Your task to perform on an android device: Add razer thresher to the cart on newegg Image 0: 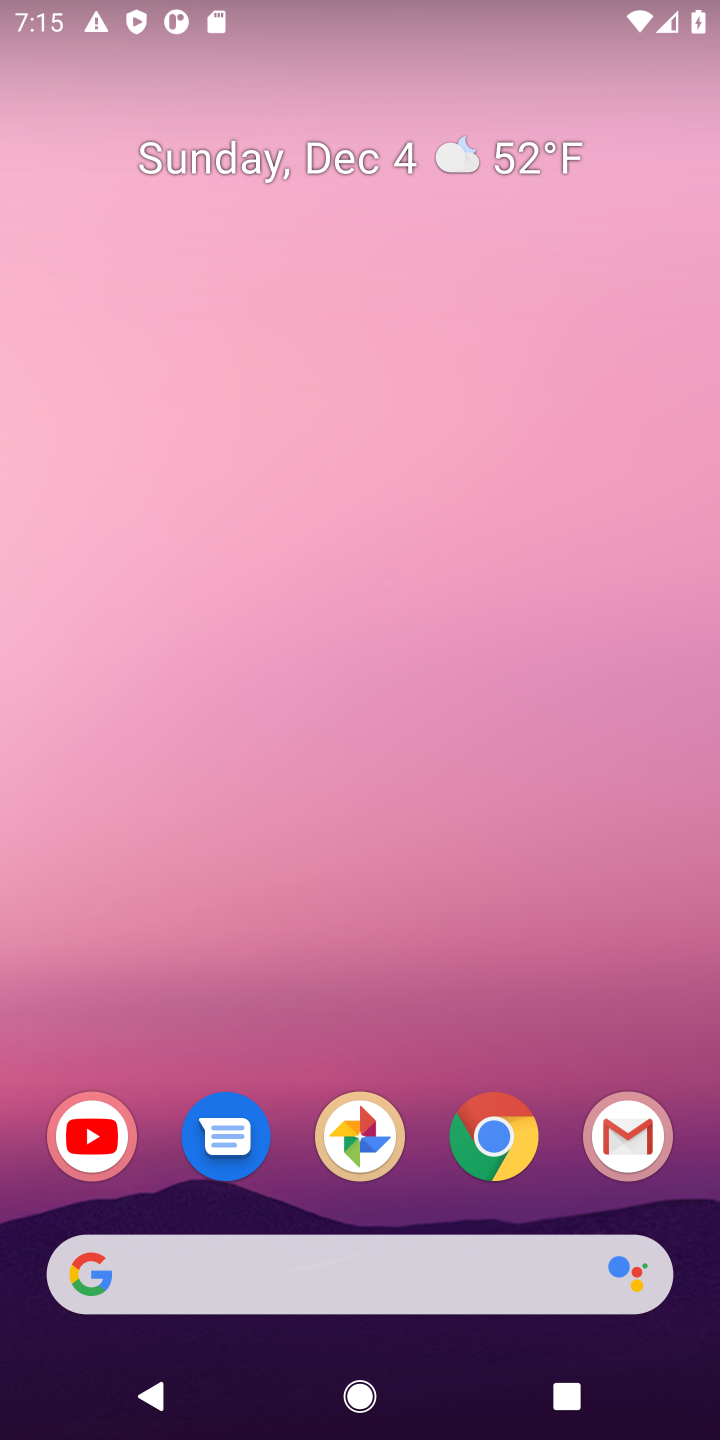
Step 0: click (505, 1143)
Your task to perform on an android device: Add razer thresher to the cart on newegg Image 1: 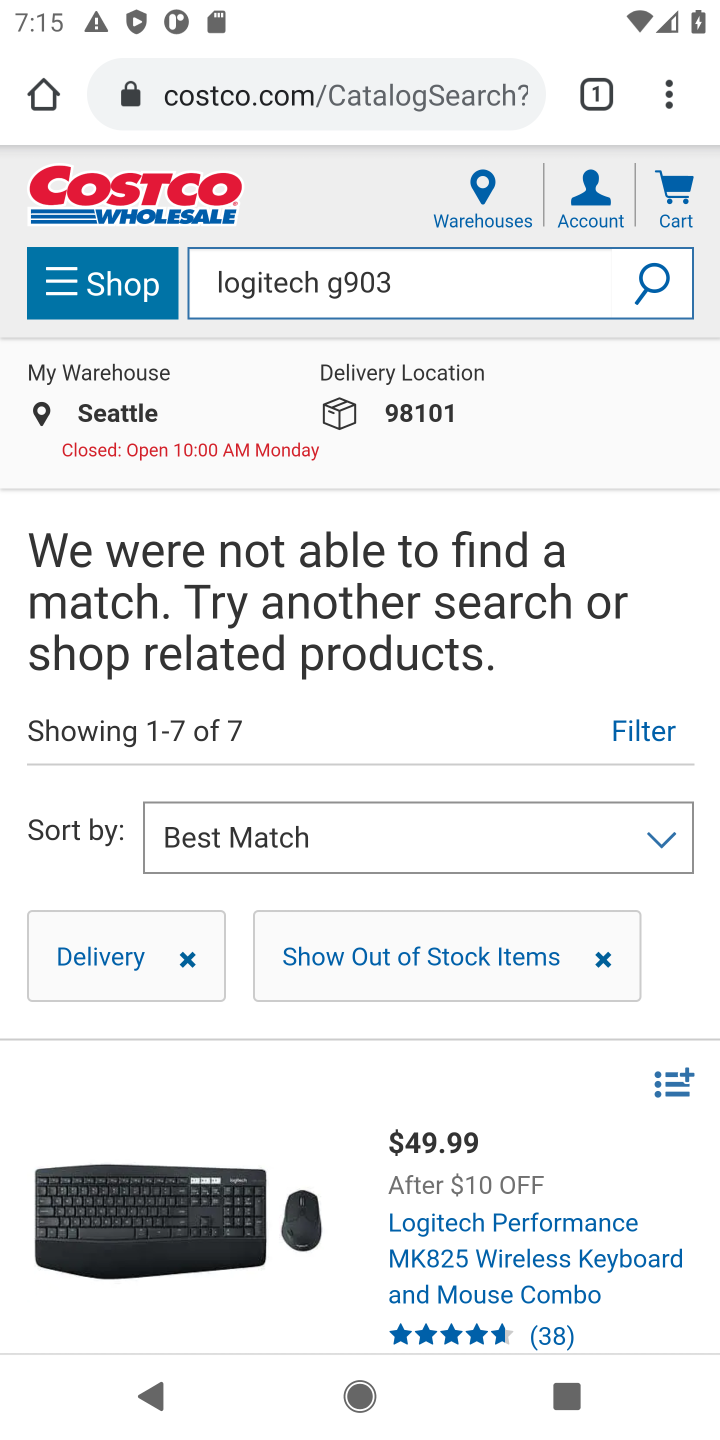
Step 1: click (289, 101)
Your task to perform on an android device: Add razer thresher to the cart on newegg Image 2: 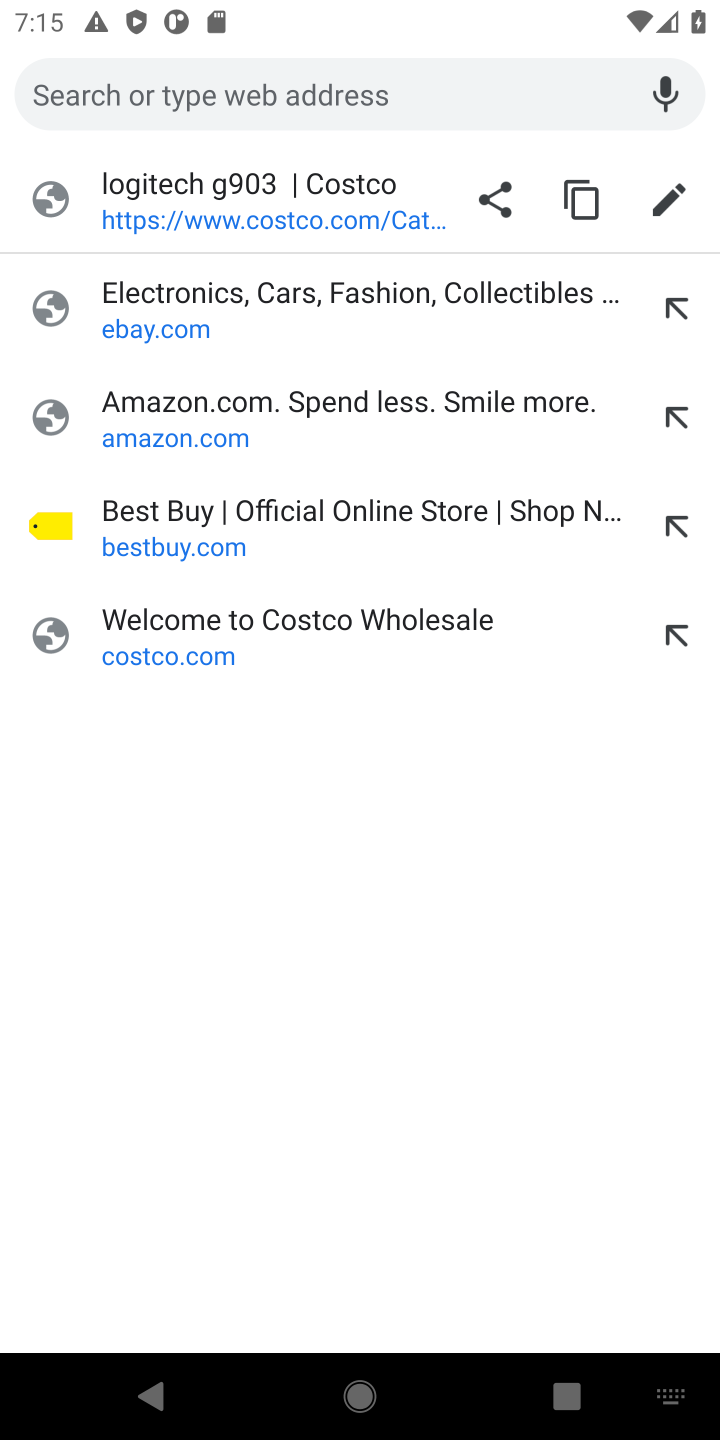
Step 2: type "newegg.com"
Your task to perform on an android device: Add razer thresher to the cart on newegg Image 3: 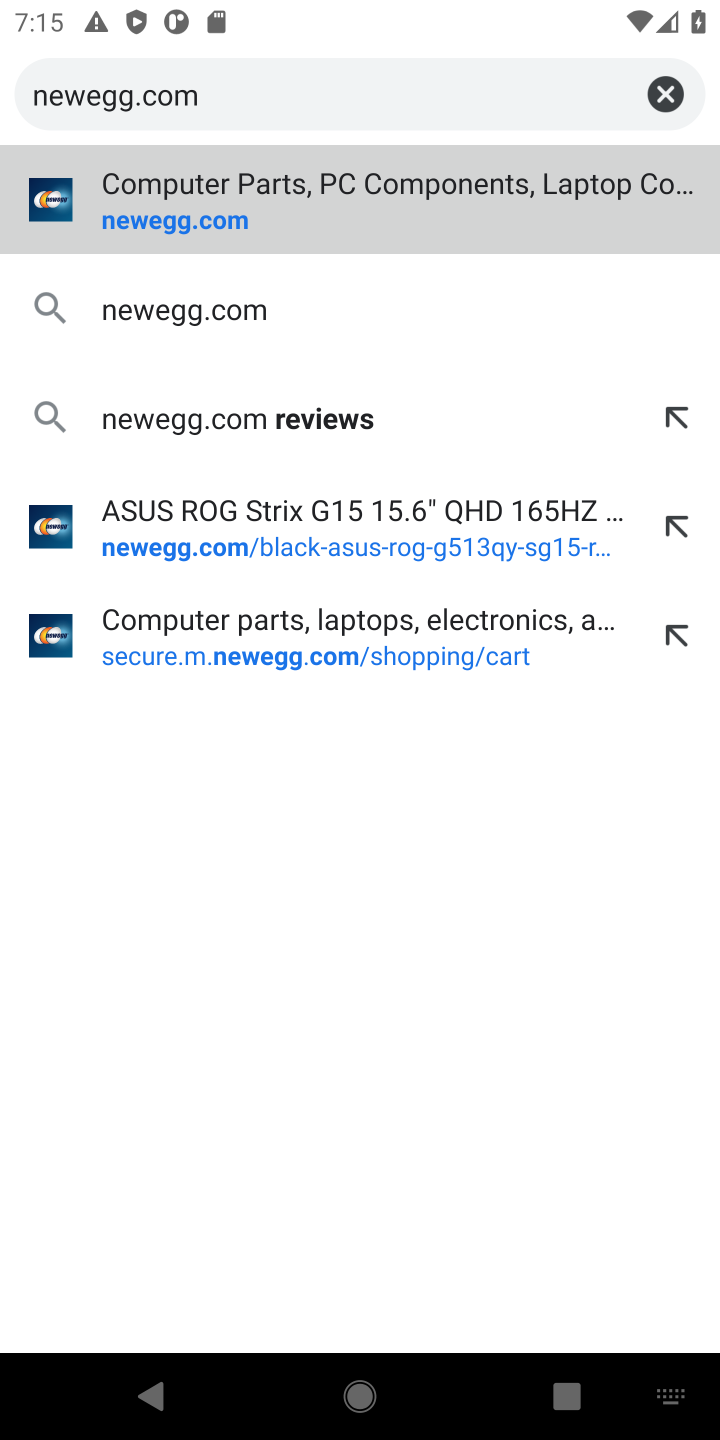
Step 3: click (181, 225)
Your task to perform on an android device: Add razer thresher to the cart on newegg Image 4: 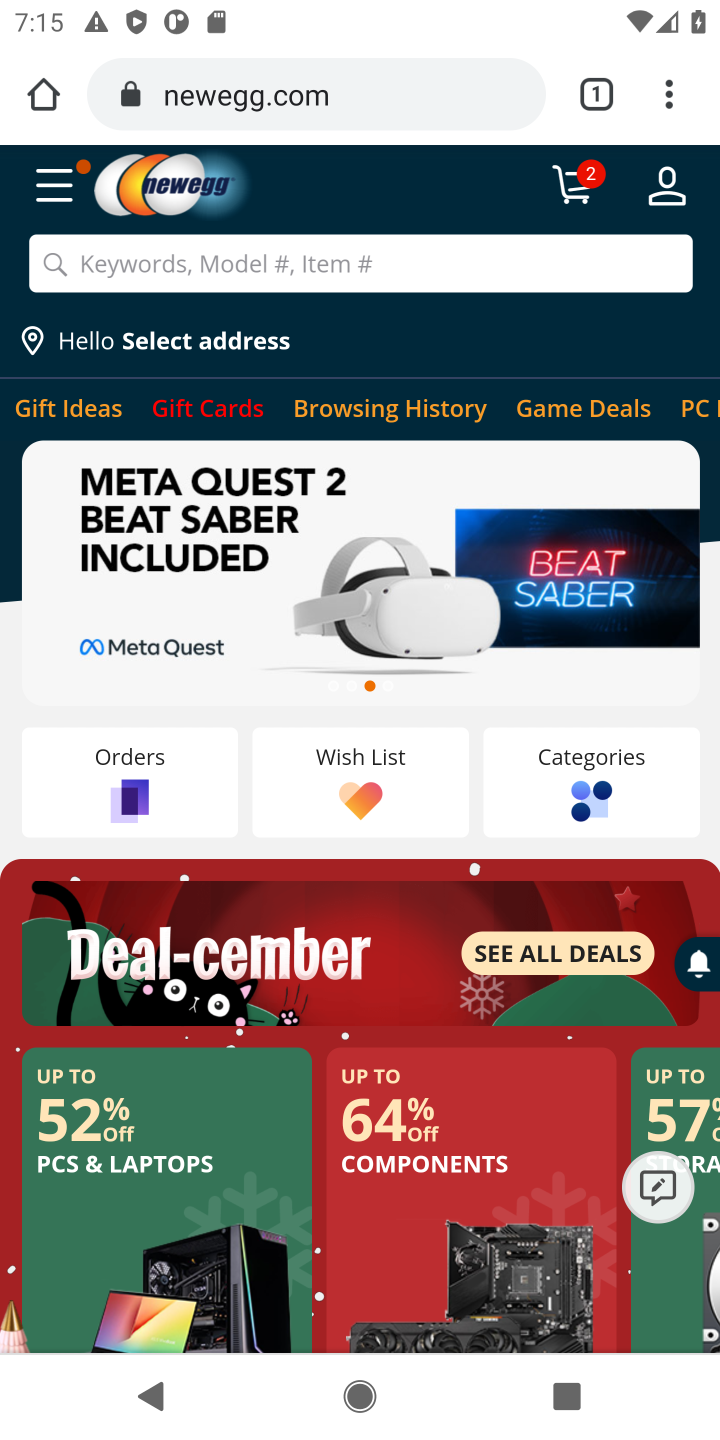
Step 4: click (125, 275)
Your task to perform on an android device: Add razer thresher to the cart on newegg Image 5: 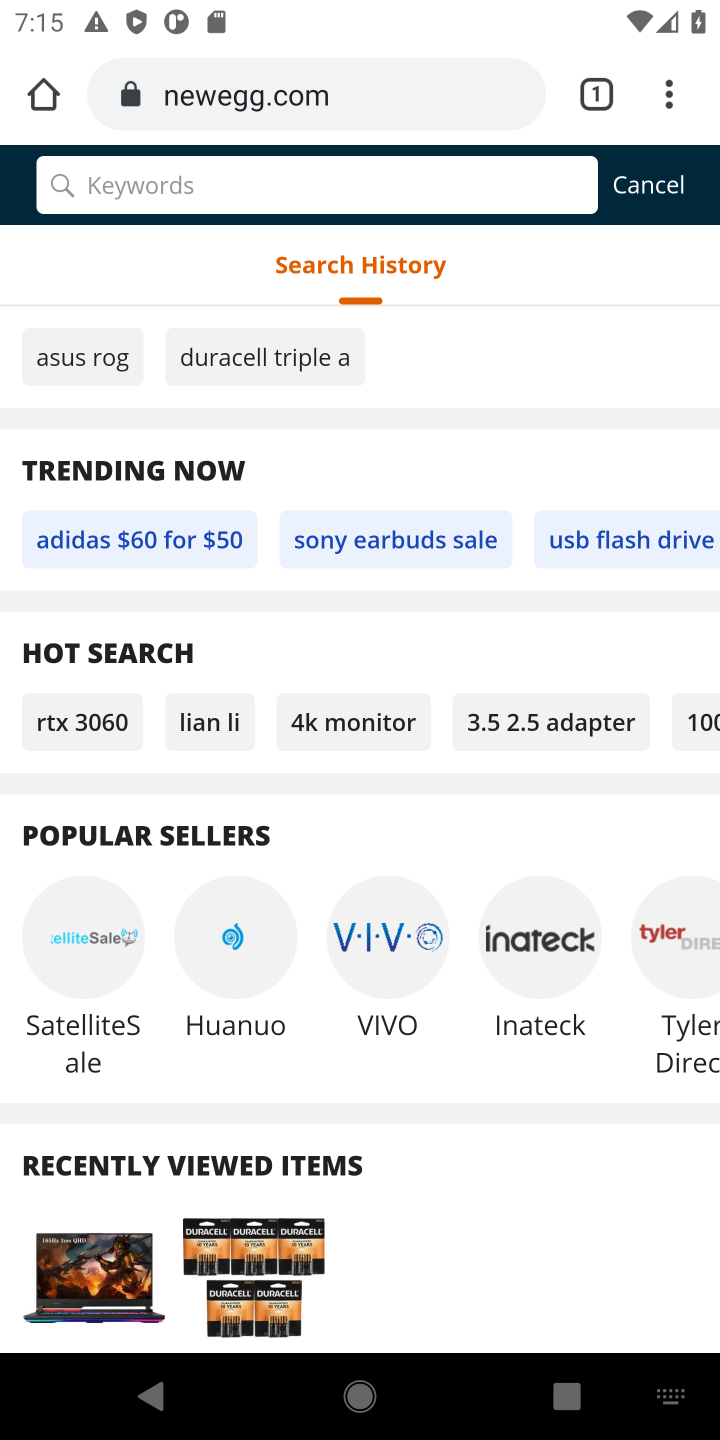
Step 5: type "razer thresher"
Your task to perform on an android device: Add razer thresher to the cart on newegg Image 6: 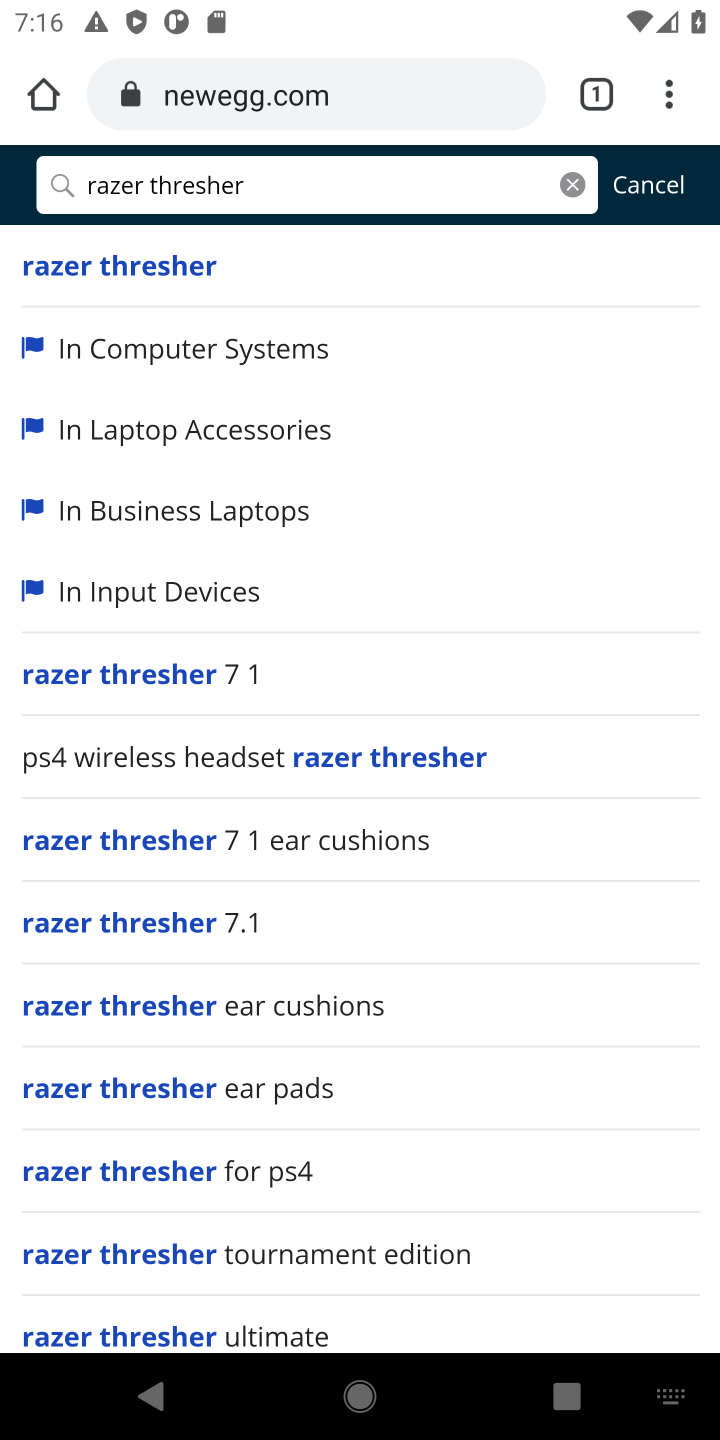
Step 6: click (74, 279)
Your task to perform on an android device: Add razer thresher to the cart on newegg Image 7: 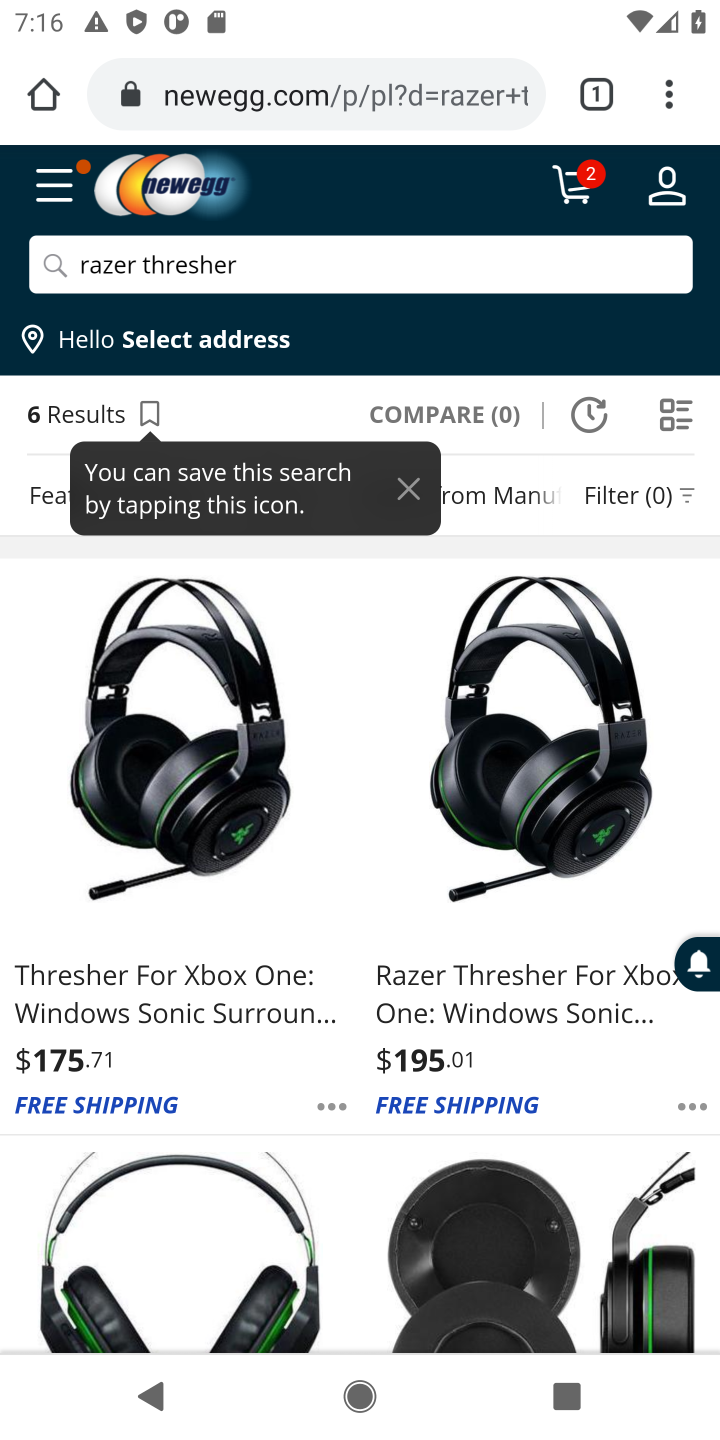
Step 7: click (592, 787)
Your task to perform on an android device: Add razer thresher to the cart on newegg Image 8: 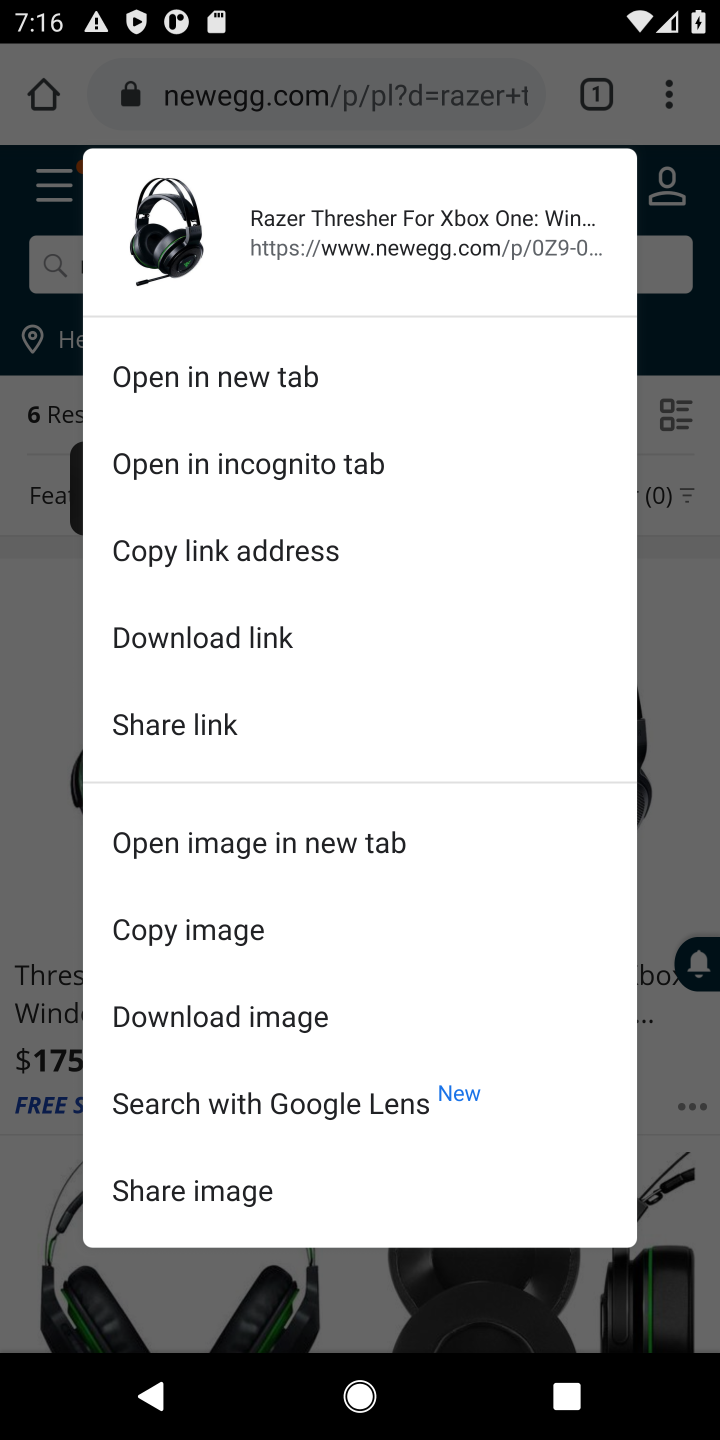
Step 8: click (669, 808)
Your task to perform on an android device: Add razer thresher to the cart on newegg Image 9: 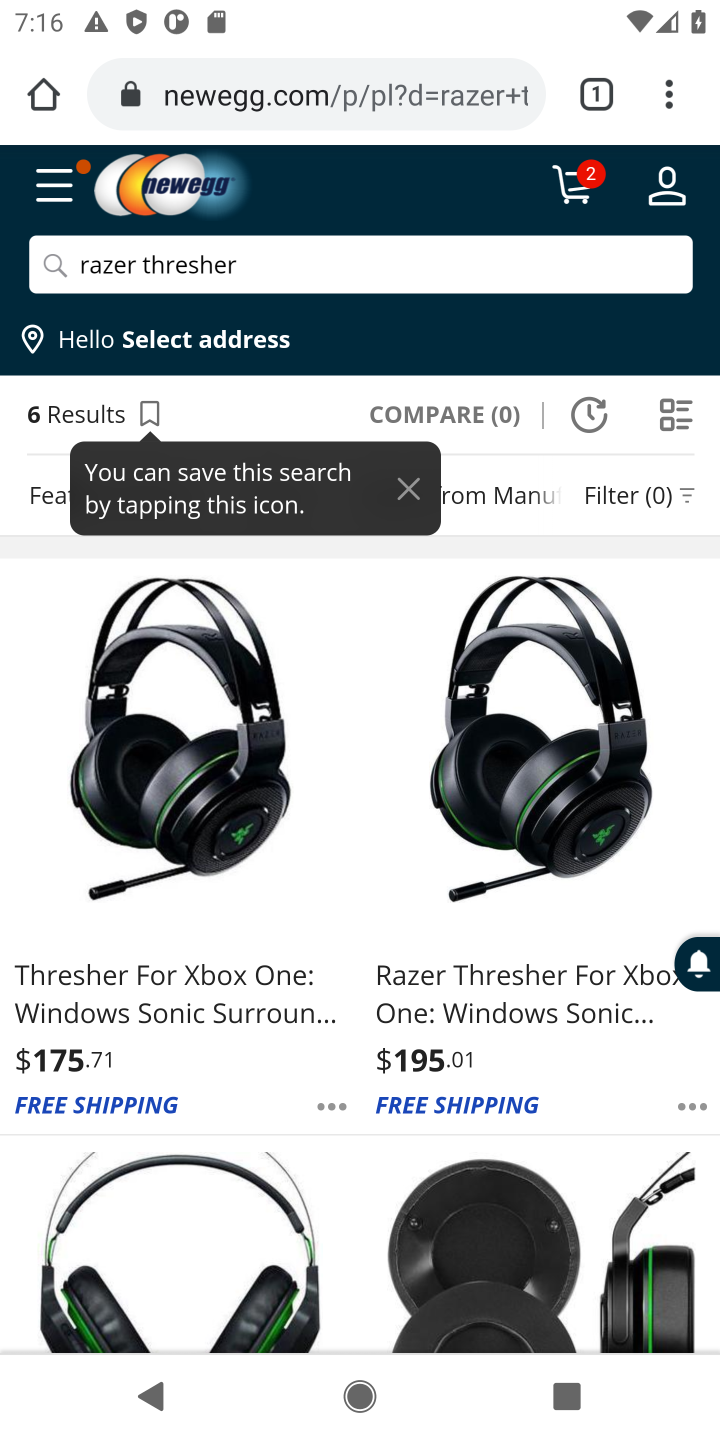
Step 9: click (575, 804)
Your task to perform on an android device: Add razer thresher to the cart on newegg Image 10: 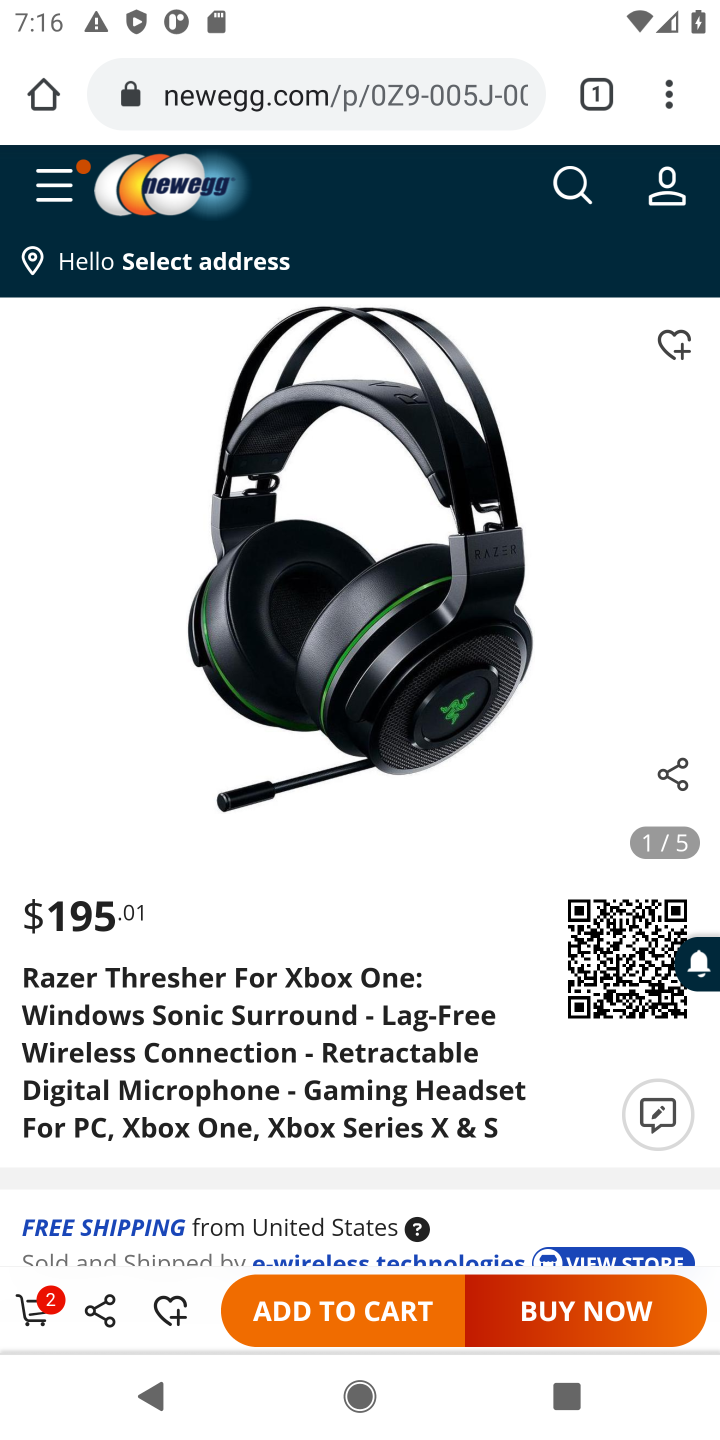
Step 10: click (307, 1318)
Your task to perform on an android device: Add razer thresher to the cart on newegg Image 11: 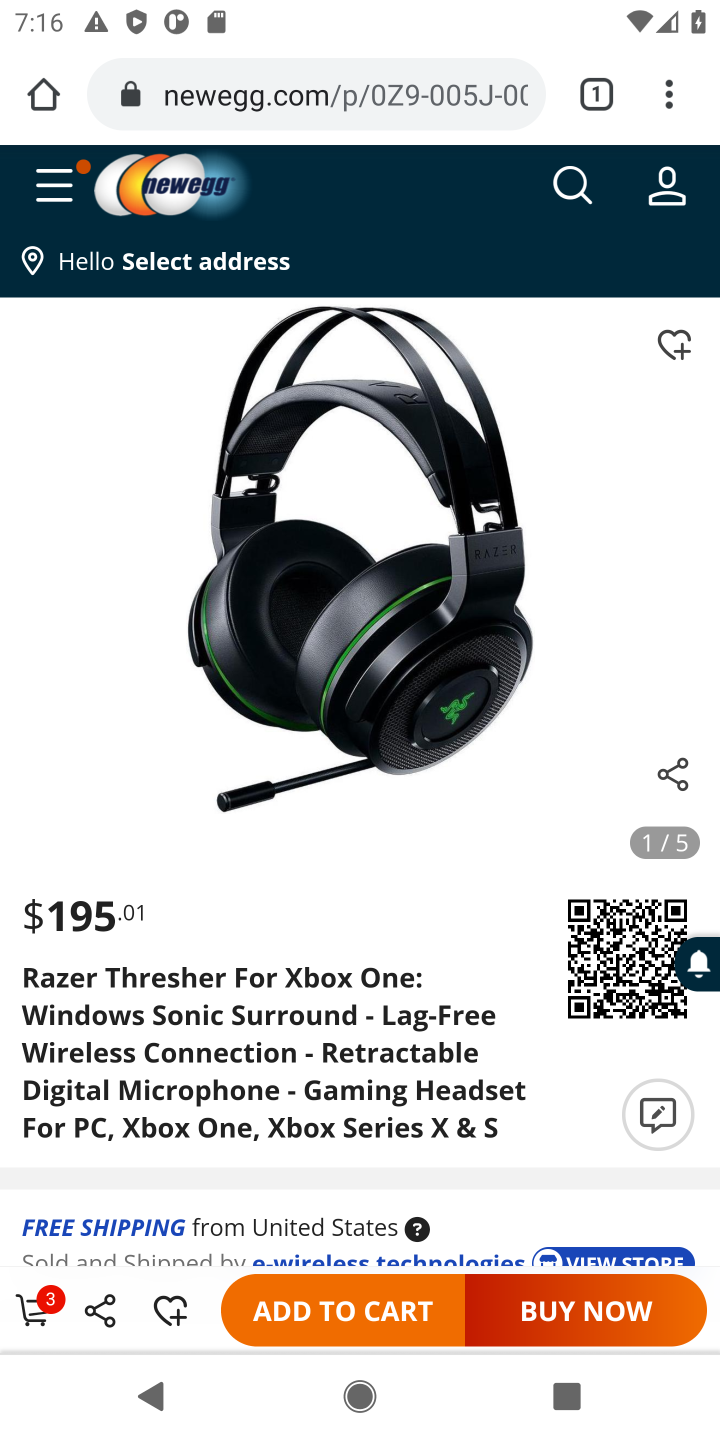
Step 11: task complete